Your task to perform on an android device: turn on wifi Image 0: 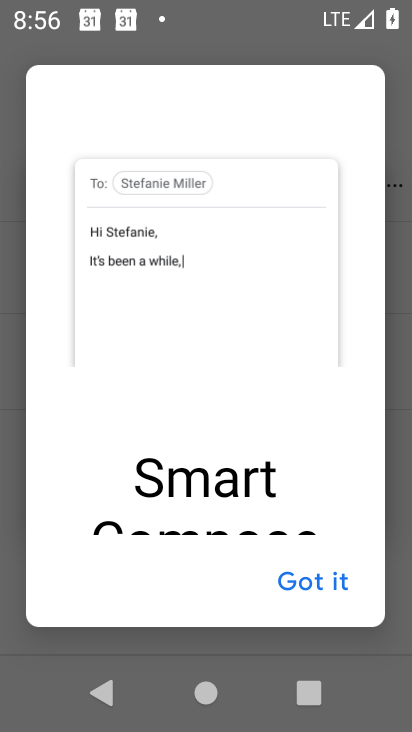
Step 0: press home button
Your task to perform on an android device: turn on wifi Image 1: 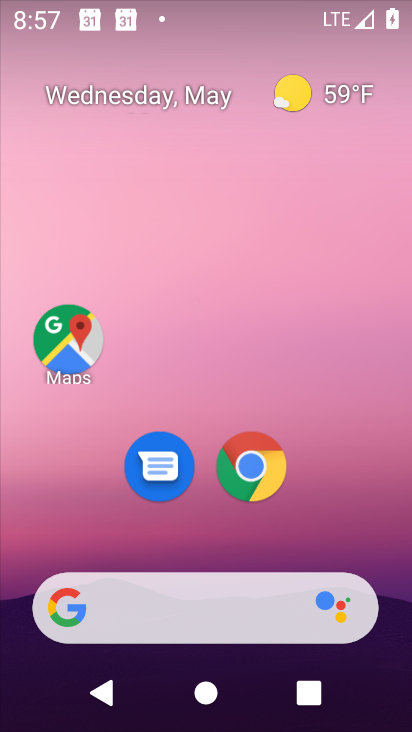
Step 1: drag from (338, 477) to (341, 85)
Your task to perform on an android device: turn on wifi Image 2: 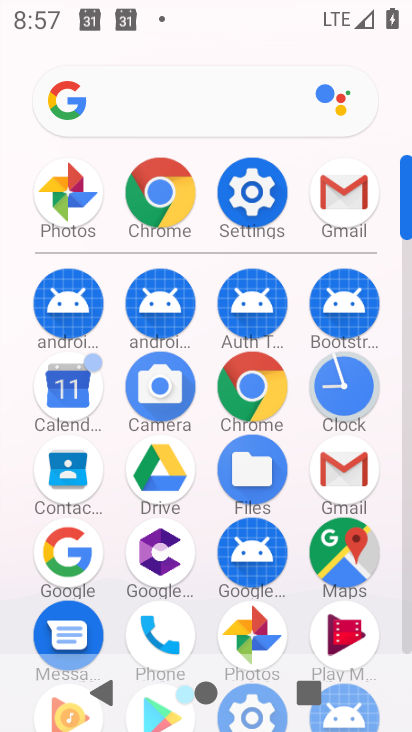
Step 2: click (240, 193)
Your task to perform on an android device: turn on wifi Image 3: 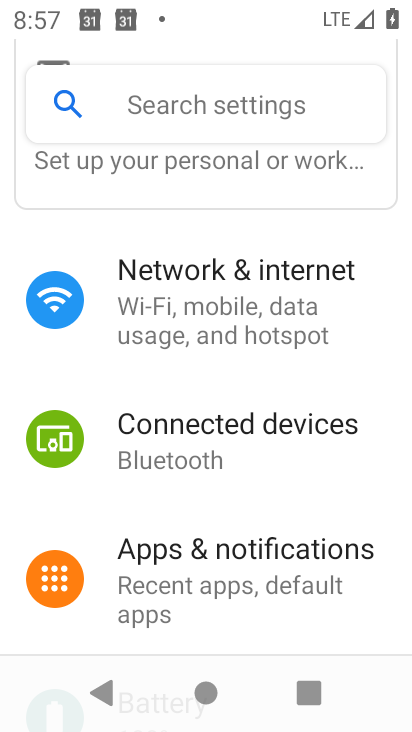
Step 3: click (198, 299)
Your task to perform on an android device: turn on wifi Image 4: 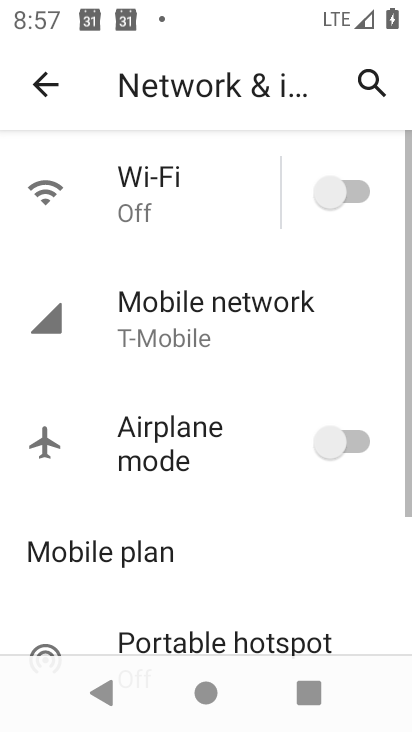
Step 4: click (353, 182)
Your task to perform on an android device: turn on wifi Image 5: 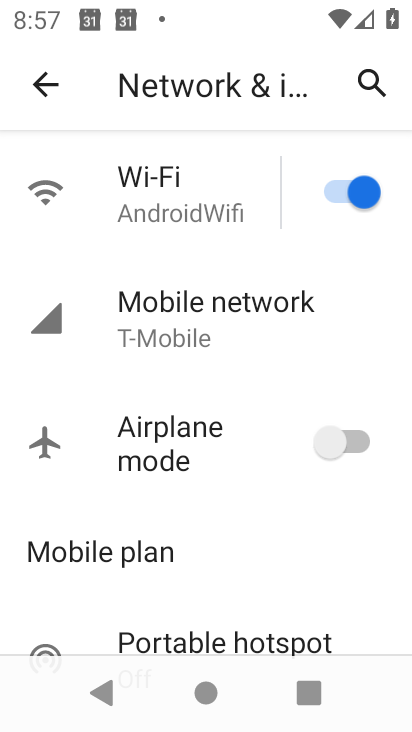
Step 5: task complete